Your task to perform on an android device: clear all cookies in the chrome app Image 0: 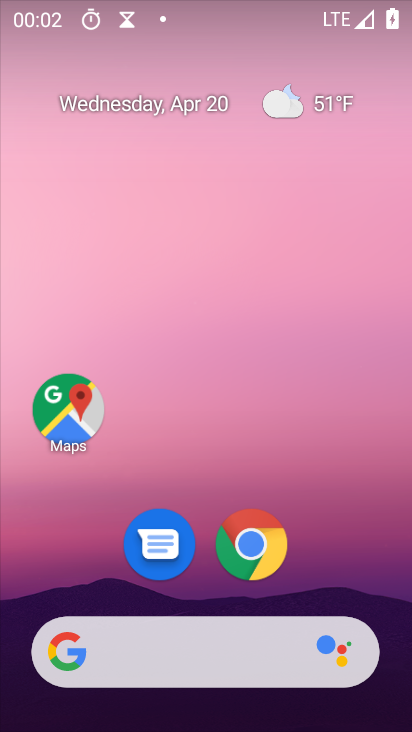
Step 0: click (234, 550)
Your task to perform on an android device: clear all cookies in the chrome app Image 1: 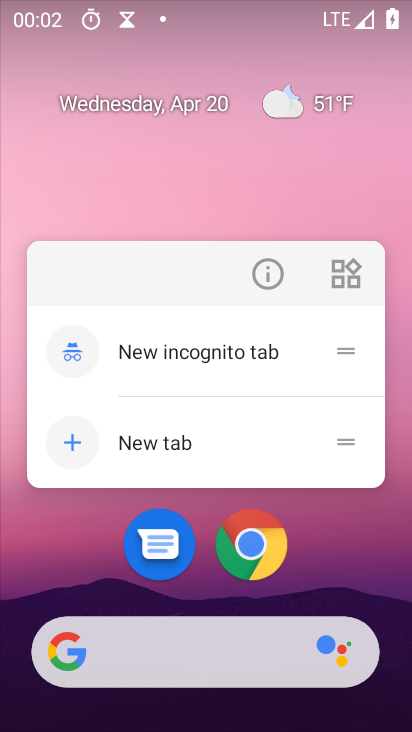
Step 1: click (234, 550)
Your task to perform on an android device: clear all cookies in the chrome app Image 2: 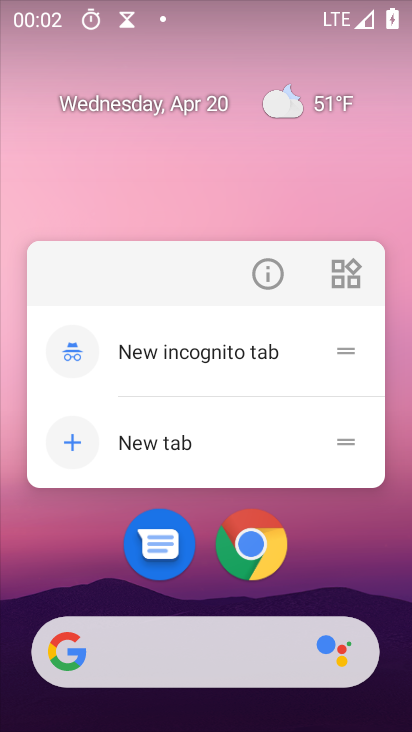
Step 2: click (234, 550)
Your task to perform on an android device: clear all cookies in the chrome app Image 3: 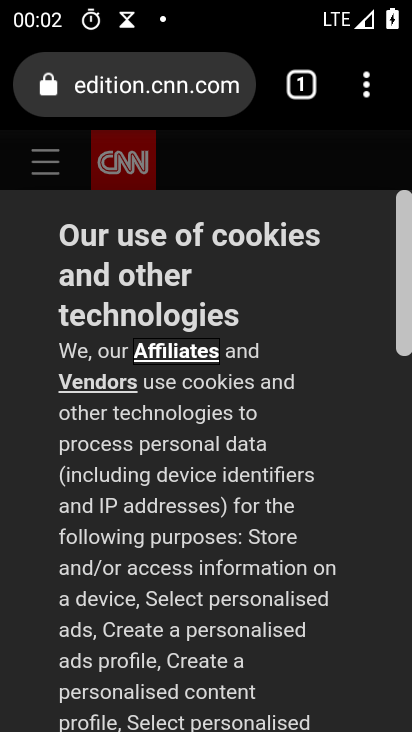
Step 3: click (372, 77)
Your task to perform on an android device: clear all cookies in the chrome app Image 4: 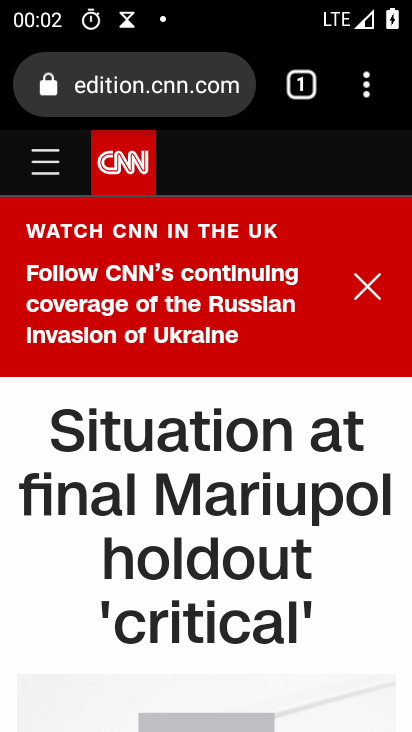
Step 4: click (371, 78)
Your task to perform on an android device: clear all cookies in the chrome app Image 5: 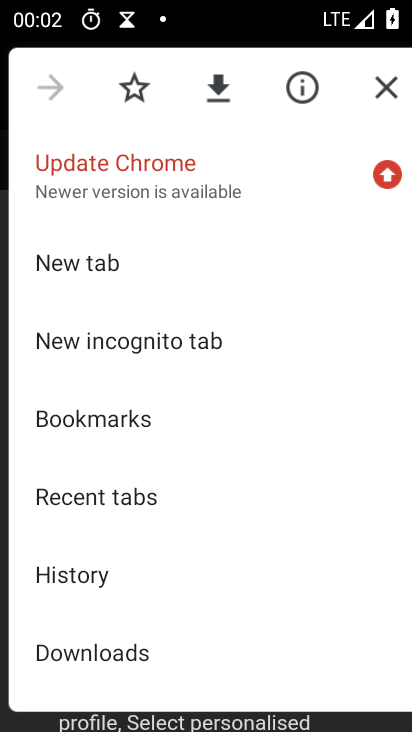
Step 5: click (111, 567)
Your task to perform on an android device: clear all cookies in the chrome app Image 6: 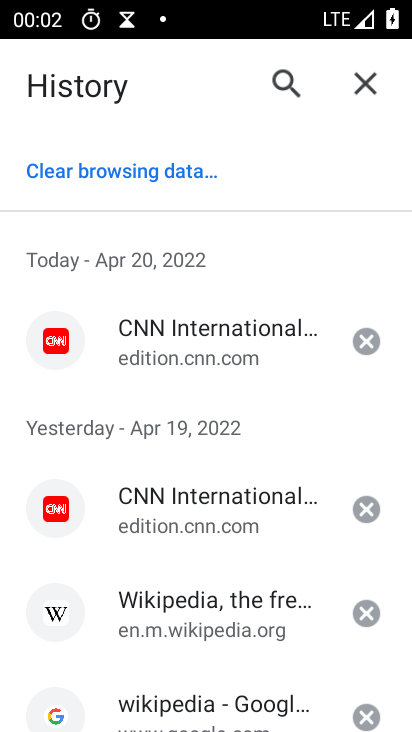
Step 6: click (73, 163)
Your task to perform on an android device: clear all cookies in the chrome app Image 7: 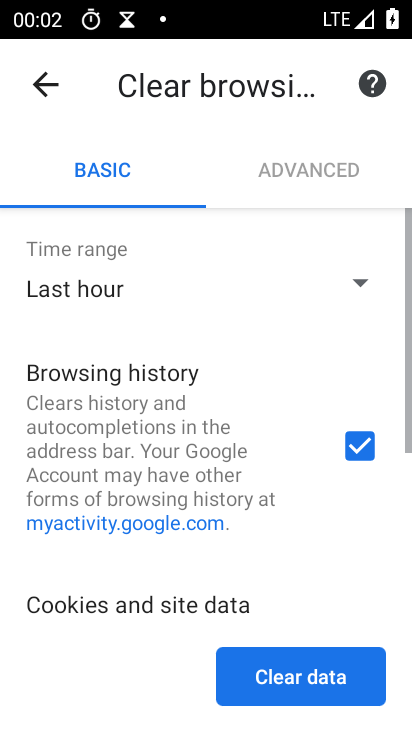
Step 7: click (245, 443)
Your task to perform on an android device: clear all cookies in the chrome app Image 8: 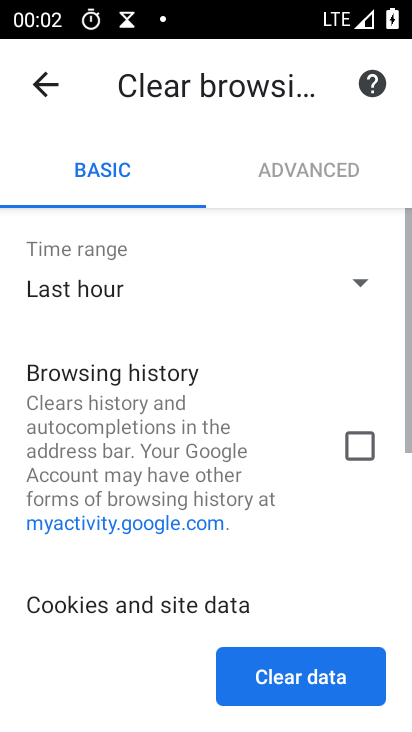
Step 8: drag from (274, 509) to (306, 100)
Your task to perform on an android device: clear all cookies in the chrome app Image 9: 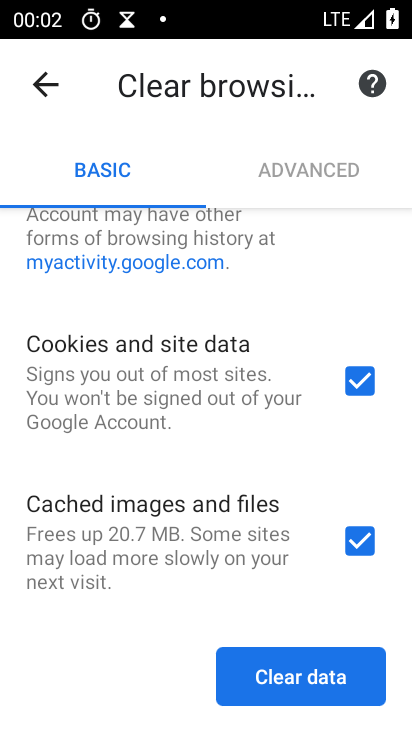
Step 9: click (300, 516)
Your task to perform on an android device: clear all cookies in the chrome app Image 10: 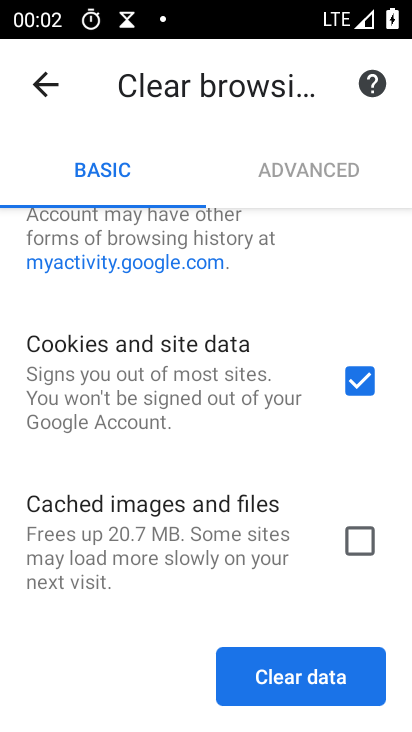
Step 10: click (284, 679)
Your task to perform on an android device: clear all cookies in the chrome app Image 11: 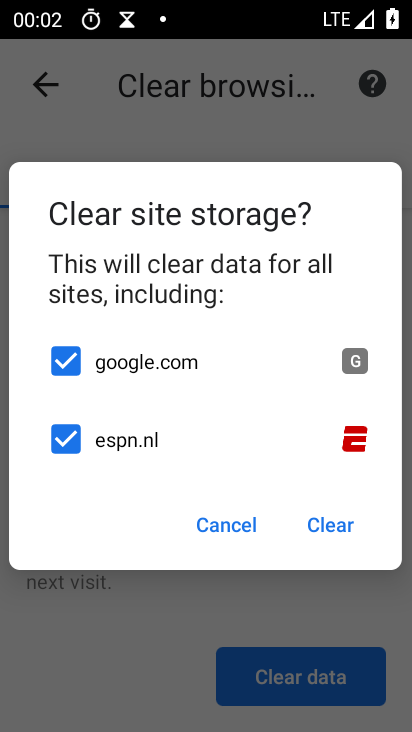
Step 11: click (304, 527)
Your task to perform on an android device: clear all cookies in the chrome app Image 12: 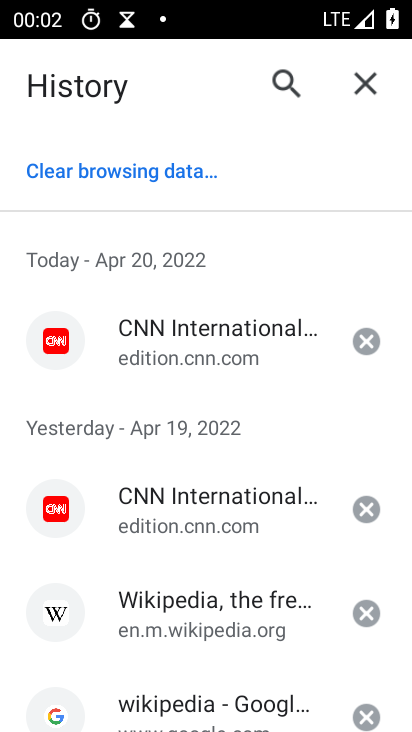
Step 12: task complete